Your task to perform on an android device: find photos in the google photos app Image 0: 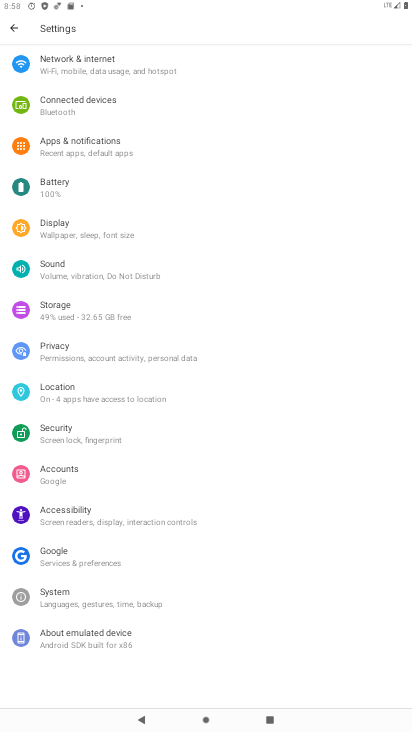
Step 0: press home button
Your task to perform on an android device: find photos in the google photos app Image 1: 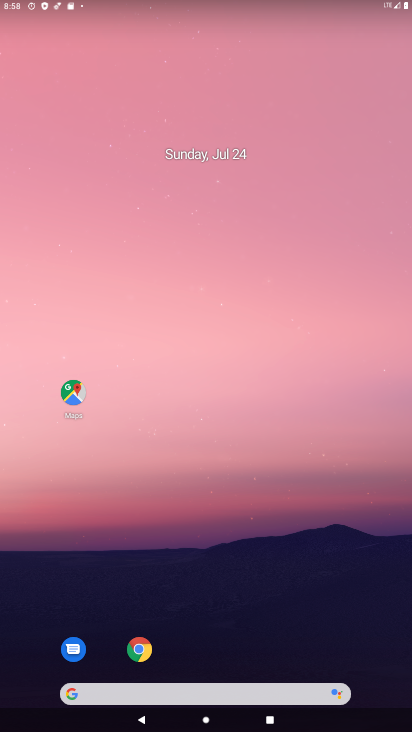
Step 1: click (80, 392)
Your task to perform on an android device: find photos in the google photos app Image 2: 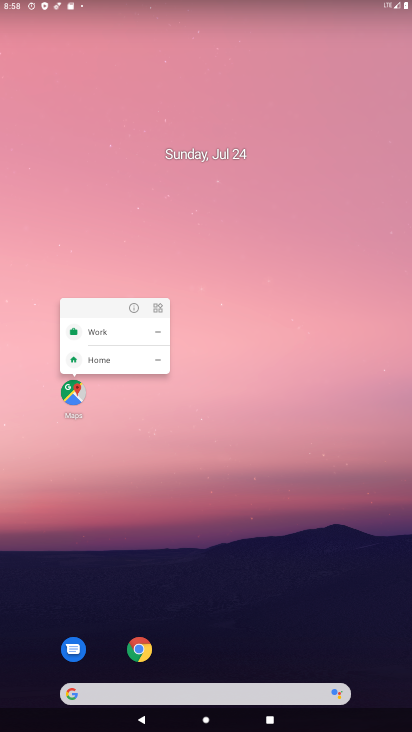
Step 2: click (75, 390)
Your task to perform on an android device: find photos in the google photos app Image 3: 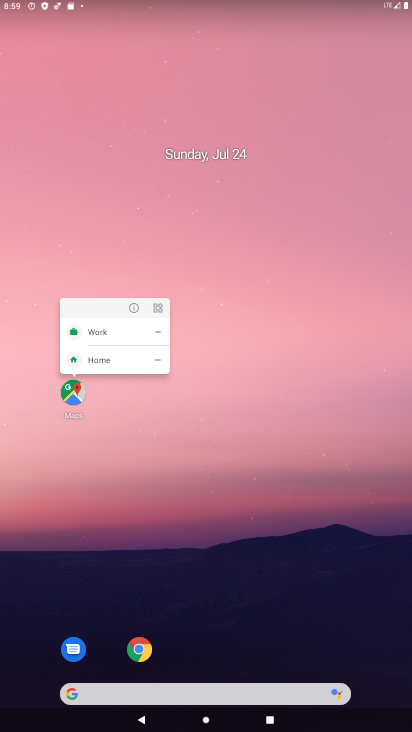
Step 3: drag from (28, 689) to (148, 173)
Your task to perform on an android device: find photos in the google photos app Image 4: 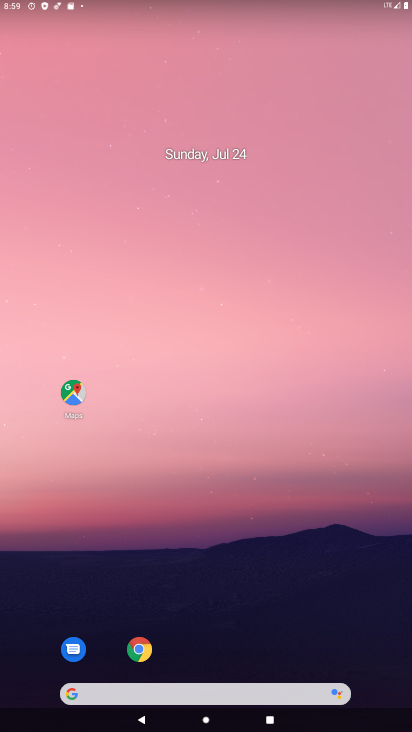
Step 4: drag from (33, 680) to (282, 264)
Your task to perform on an android device: find photos in the google photos app Image 5: 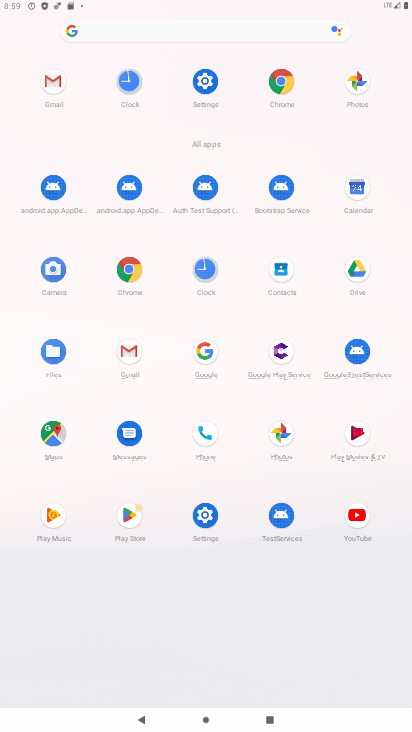
Step 5: click (277, 426)
Your task to perform on an android device: find photos in the google photos app Image 6: 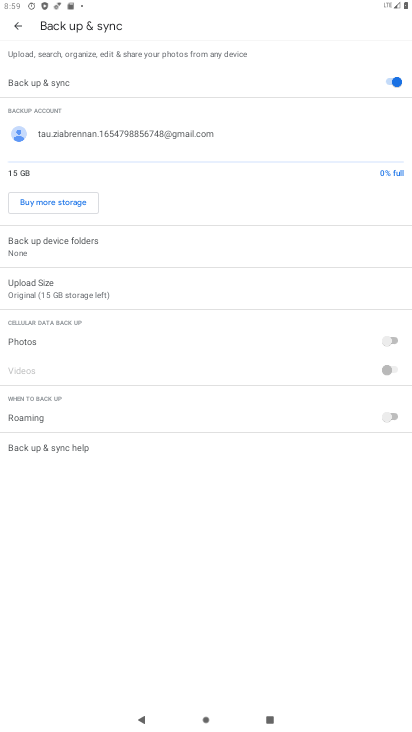
Step 6: click (17, 25)
Your task to perform on an android device: find photos in the google photos app Image 7: 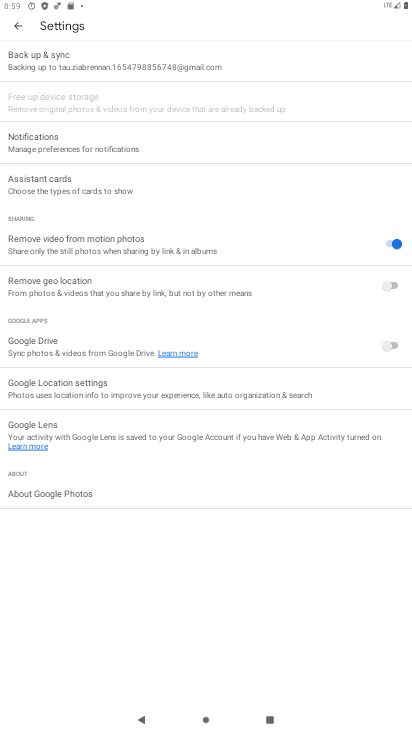
Step 7: click (11, 21)
Your task to perform on an android device: find photos in the google photos app Image 8: 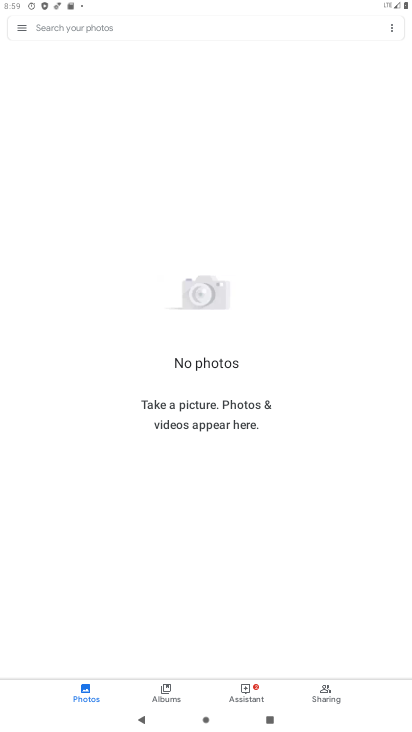
Step 8: task complete